Your task to perform on an android device: see tabs open on other devices in the chrome app Image 0: 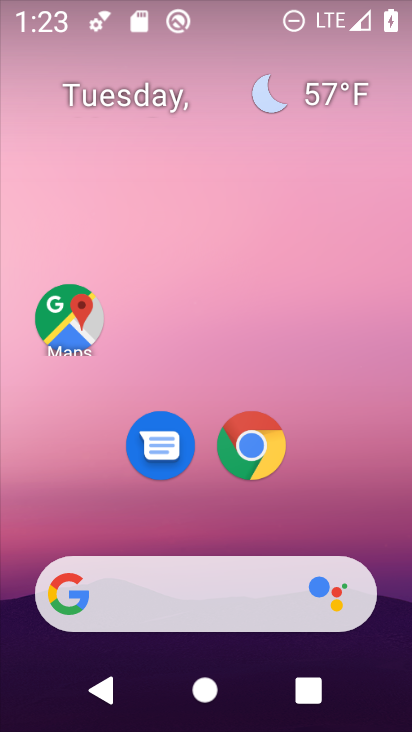
Step 0: drag from (382, 504) to (380, 122)
Your task to perform on an android device: see tabs open on other devices in the chrome app Image 1: 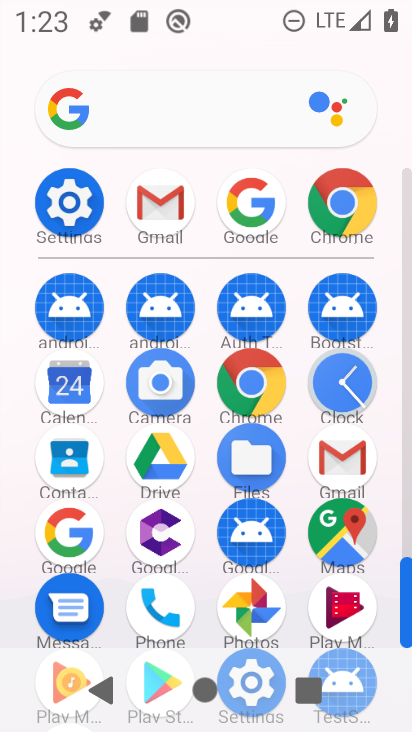
Step 1: click (251, 365)
Your task to perform on an android device: see tabs open on other devices in the chrome app Image 2: 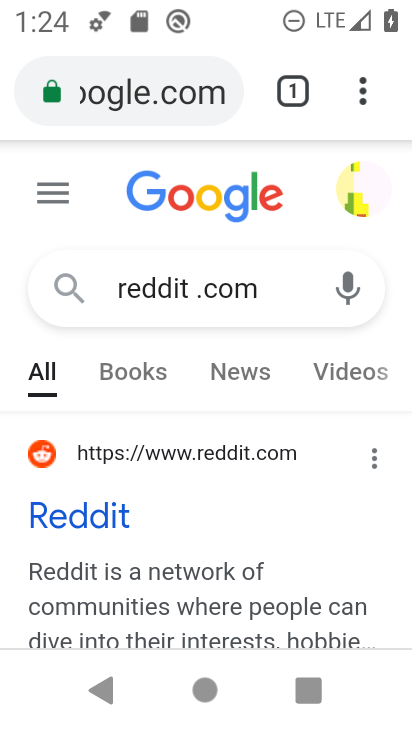
Step 2: click (366, 102)
Your task to perform on an android device: see tabs open on other devices in the chrome app Image 3: 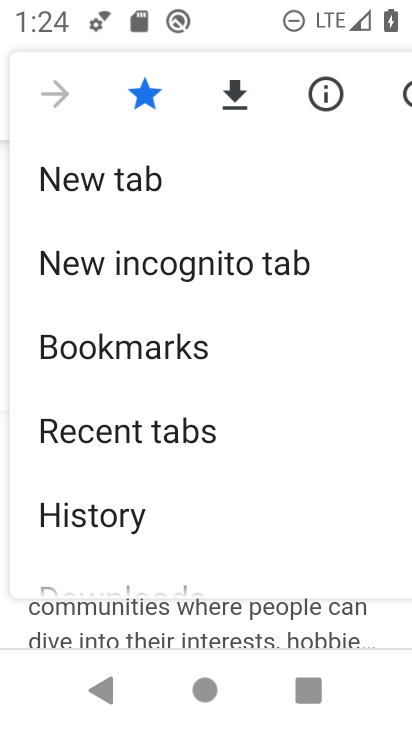
Step 3: click (201, 443)
Your task to perform on an android device: see tabs open on other devices in the chrome app Image 4: 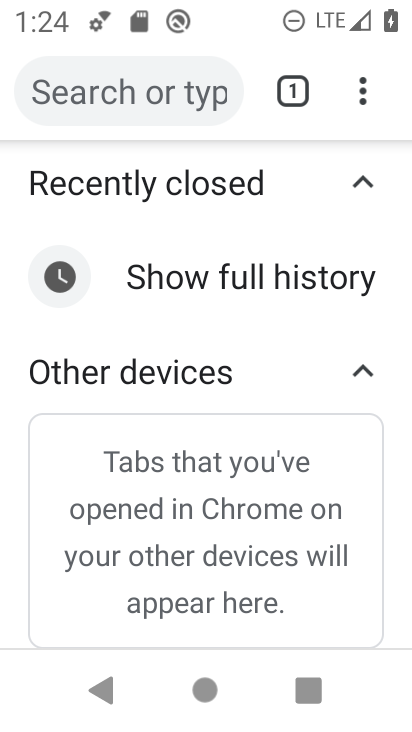
Step 4: click (305, 99)
Your task to perform on an android device: see tabs open on other devices in the chrome app Image 5: 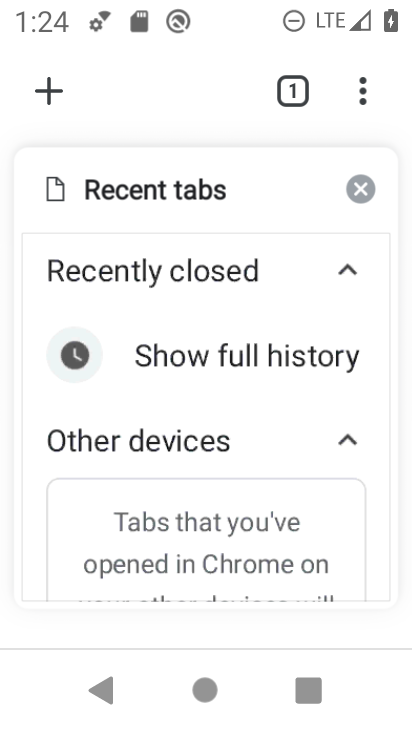
Step 5: task complete